Your task to perform on an android device: Go to eBay Image 0: 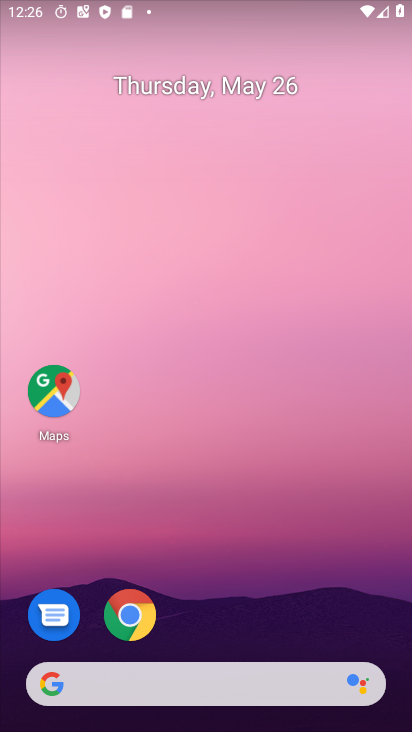
Step 0: click (142, 615)
Your task to perform on an android device: Go to eBay Image 1: 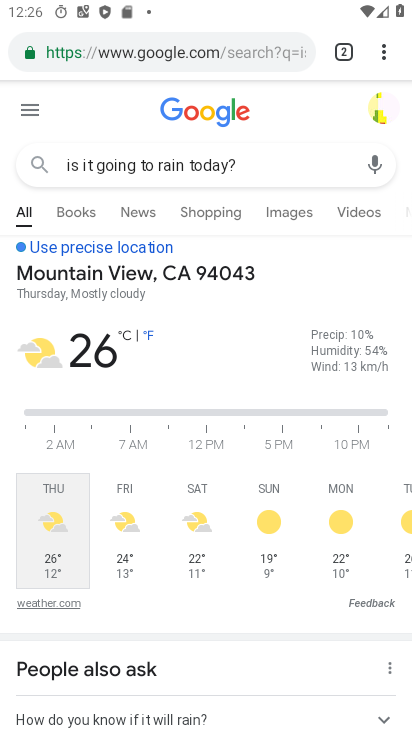
Step 1: click (338, 65)
Your task to perform on an android device: Go to eBay Image 2: 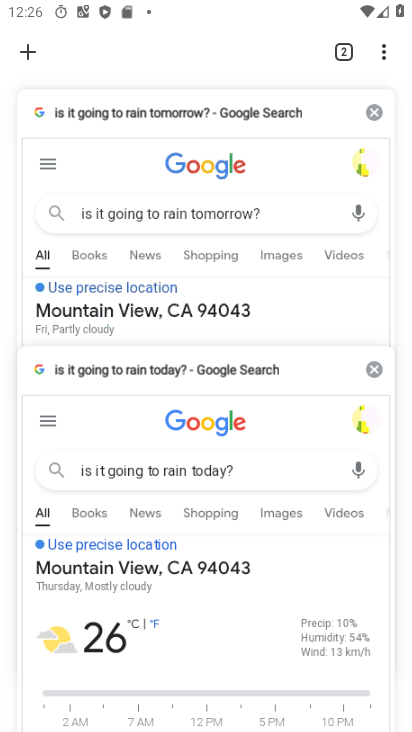
Step 2: click (34, 56)
Your task to perform on an android device: Go to eBay Image 3: 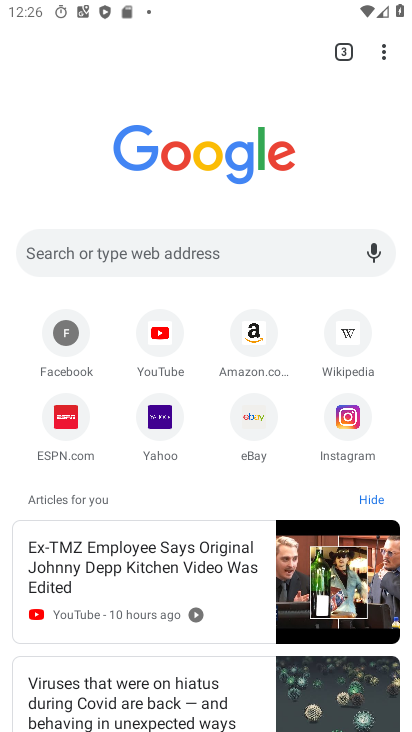
Step 3: click (245, 435)
Your task to perform on an android device: Go to eBay Image 4: 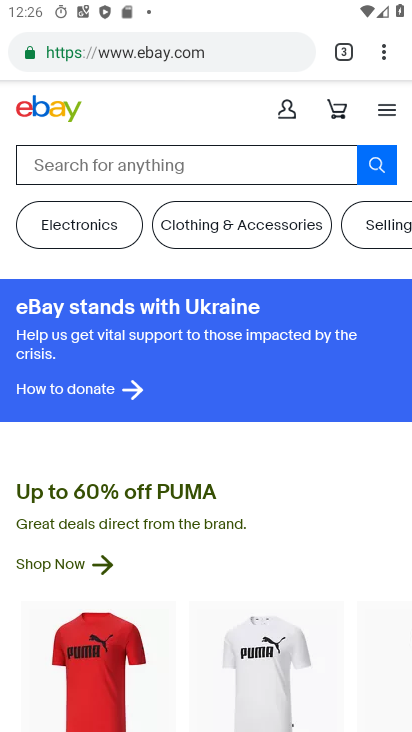
Step 4: task complete